Your task to perform on an android device: turn pop-ups off in chrome Image 0: 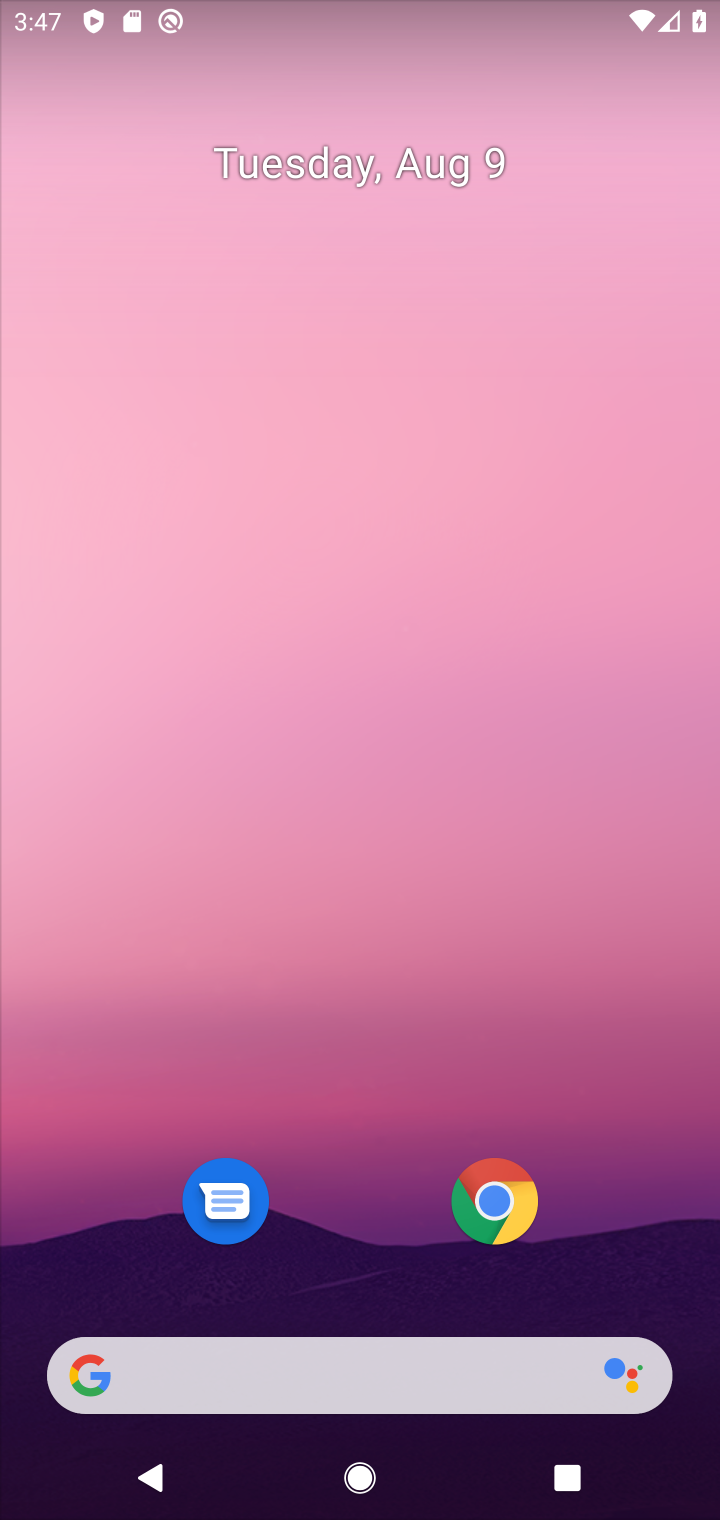
Step 0: click (492, 1201)
Your task to perform on an android device: turn pop-ups off in chrome Image 1: 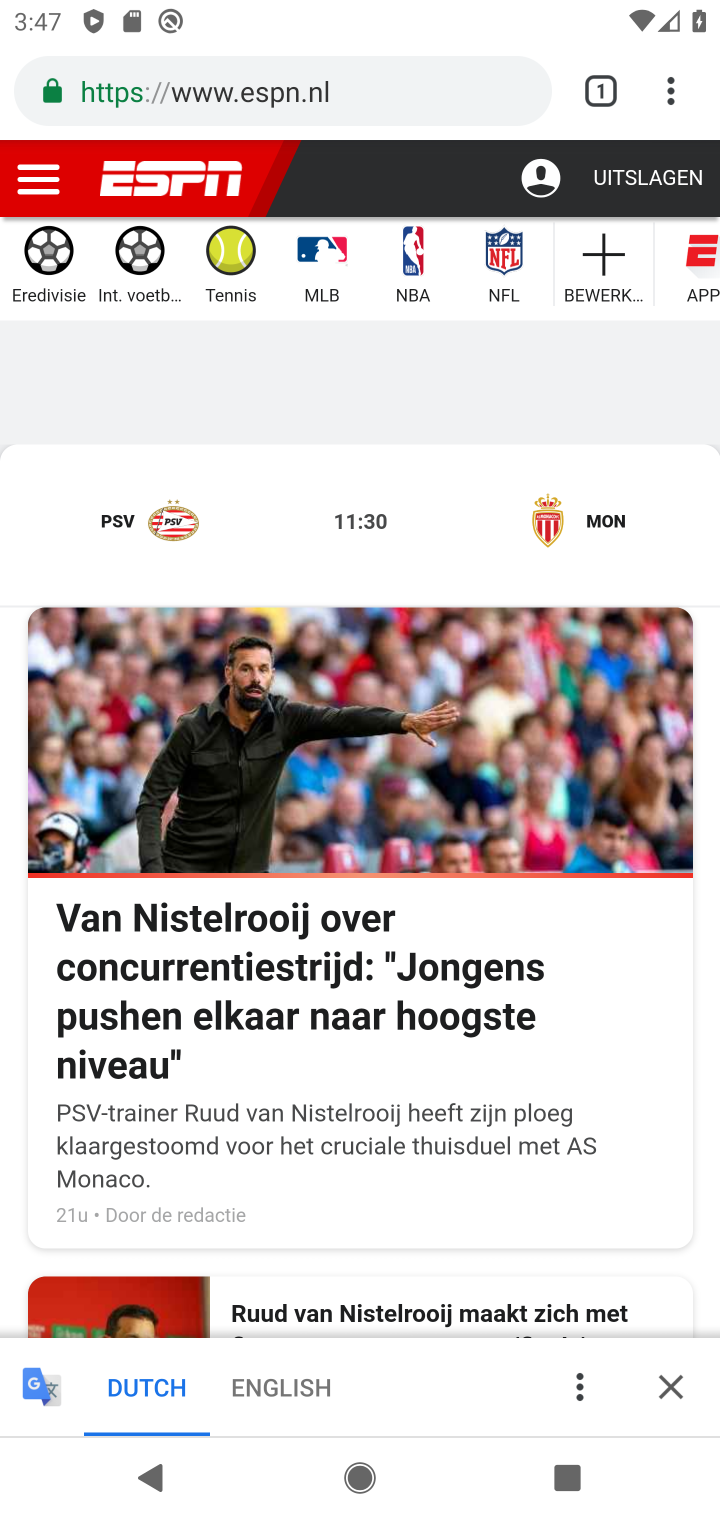
Step 1: drag from (675, 90) to (376, 1092)
Your task to perform on an android device: turn pop-ups off in chrome Image 2: 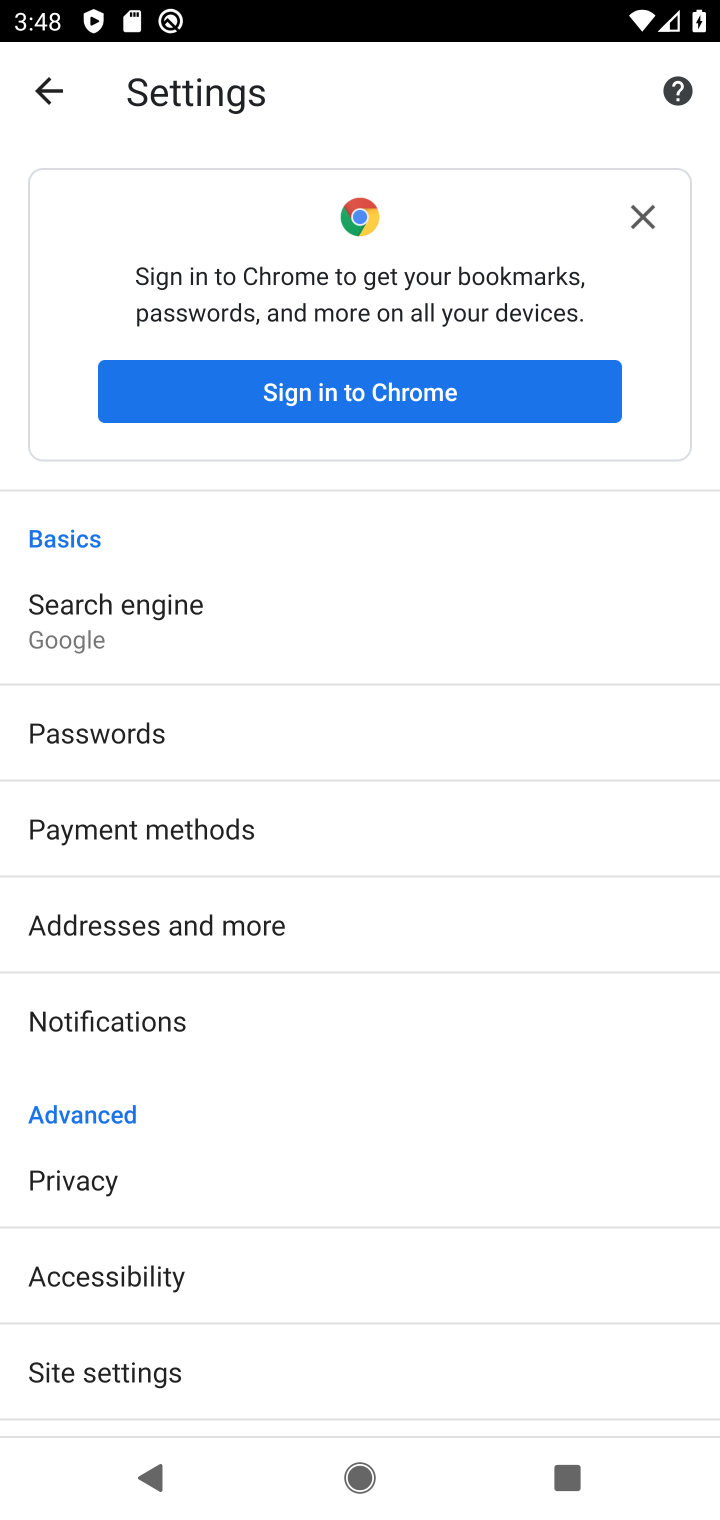
Step 2: drag from (298, 1127) to (453, 938)
Your task to perform on an android device: turn pop-ups off in chrome Image 3: 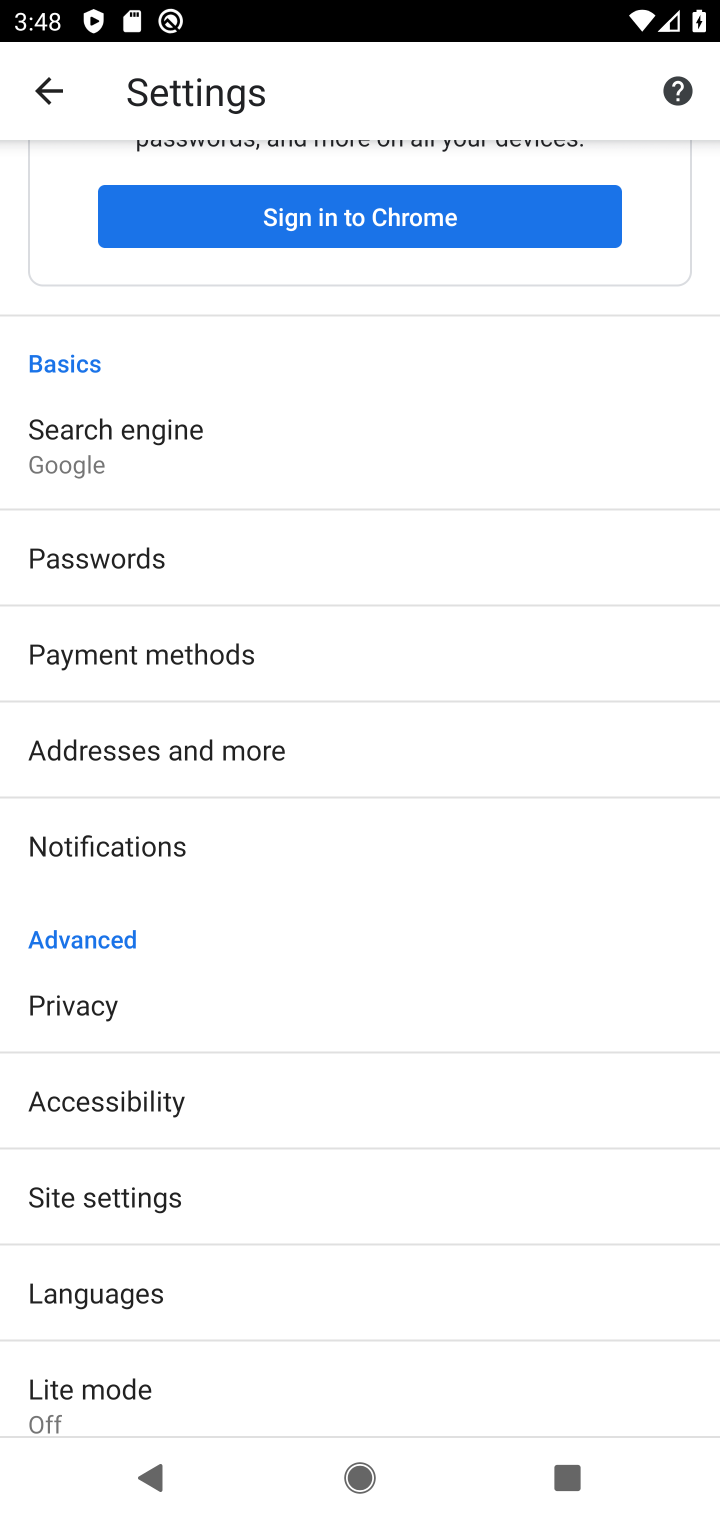
Step 3: drag from (223, 1223) to (350, 997)
Your task to perform on an android device: turn pop-ups off in chrome Image 4: 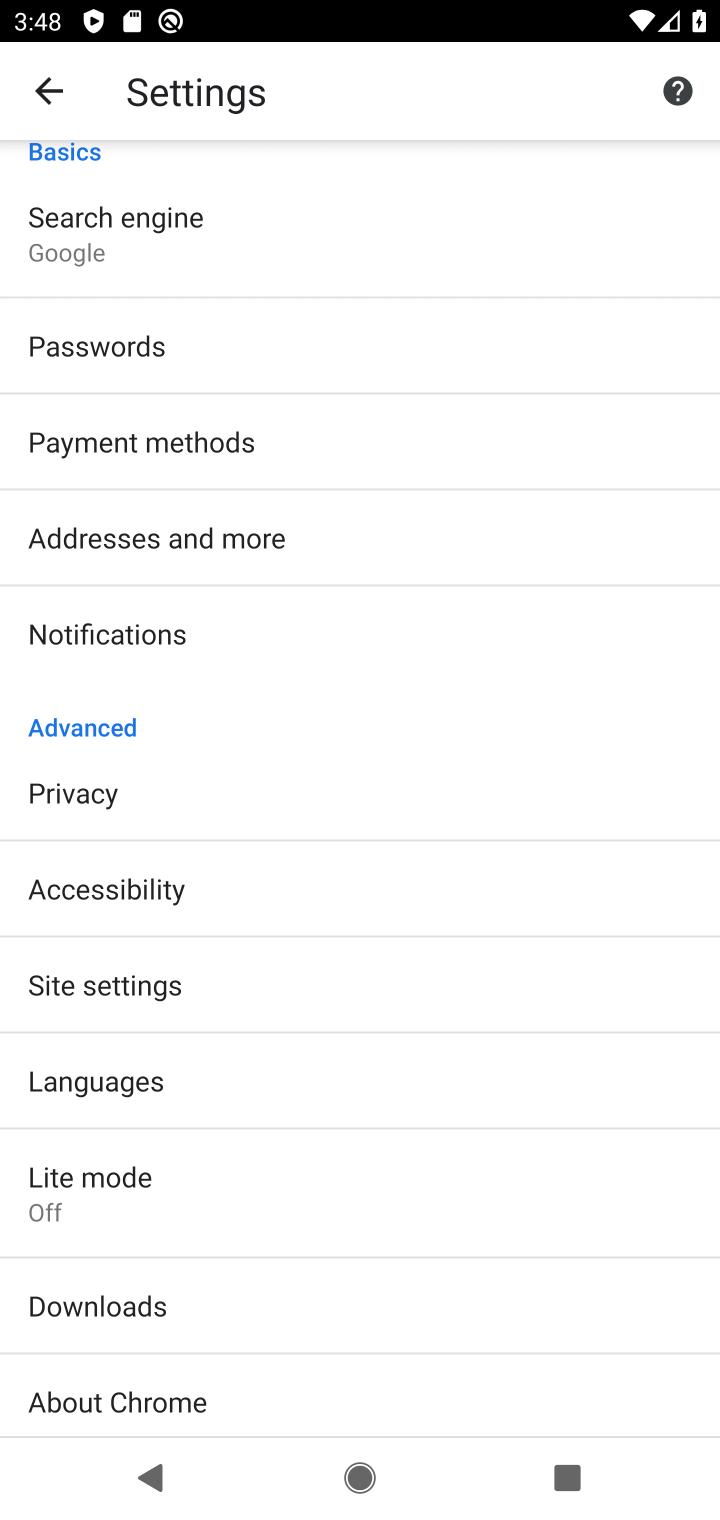
Step 4: click (145, 987)
Your task to perform on an android device: turn pop-ups off in chrome Image 5: 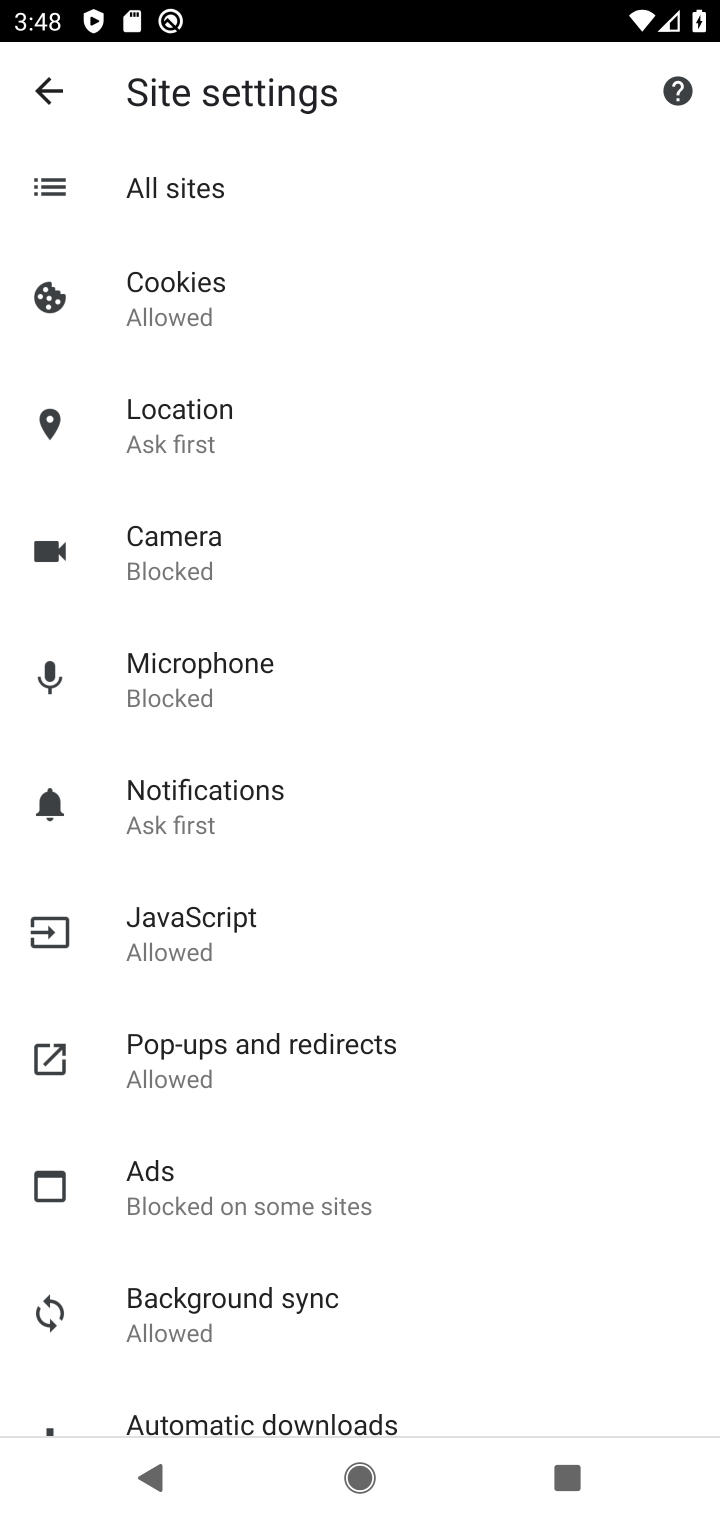
Step 5: click (193, 1046)
Your task to perform on an android device: turn pop-ups off in chrome Image 6: 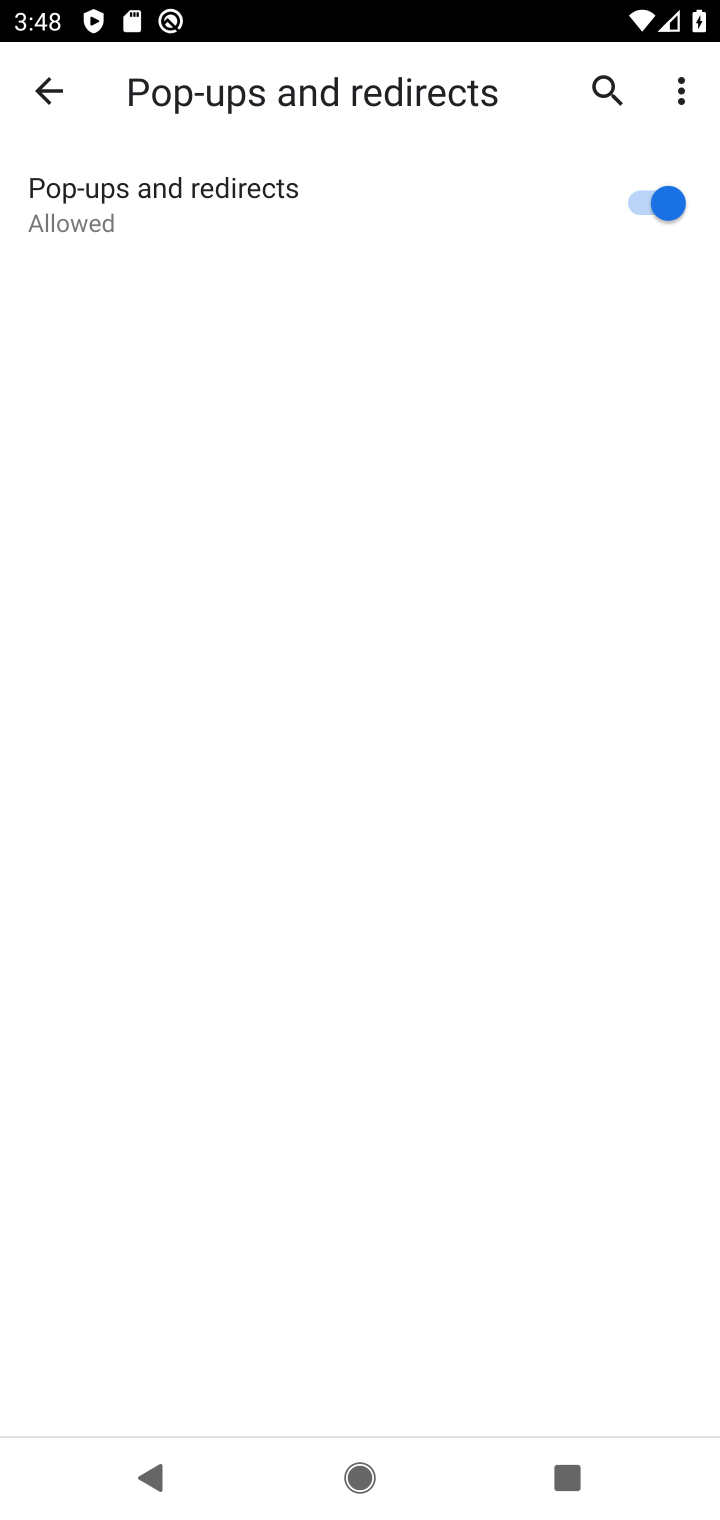
Step 6: click (637, 199)
Your task to perform on an android device: turn pop-ups off in chrome Image 7: 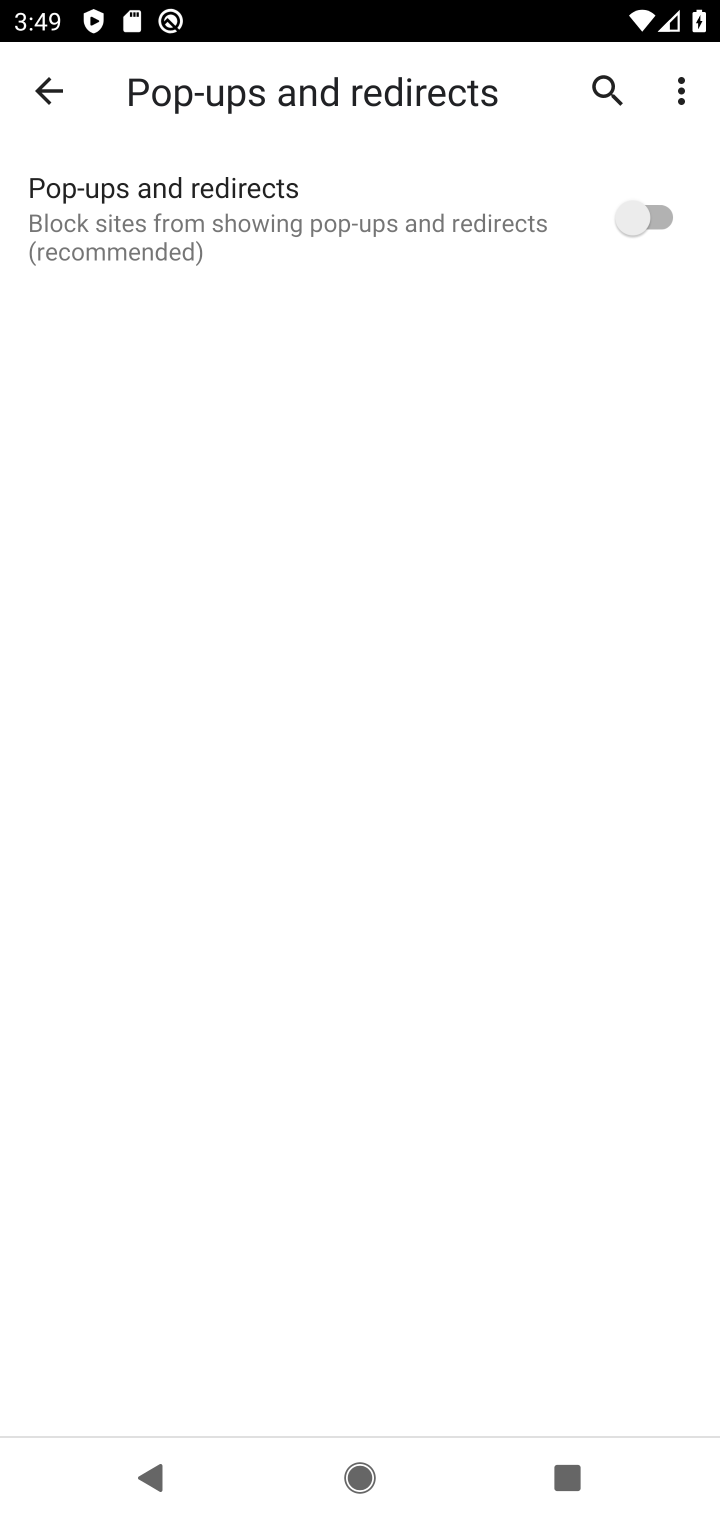
Step 7: task complete